Your task to perform on an android device: turn on improve location accuracy Image 0: 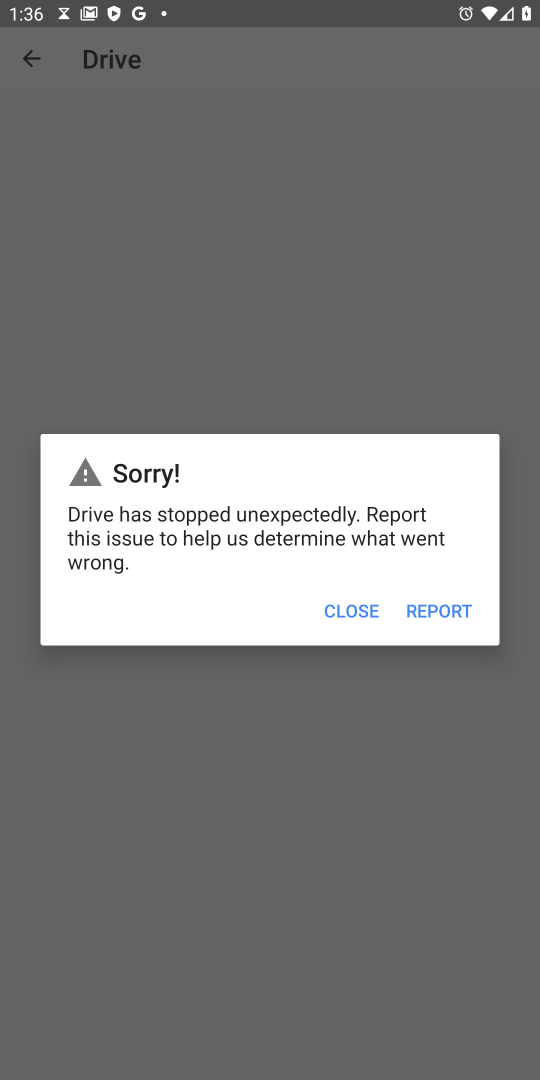
Step 0: press home button
Your task to perform on an android device: turn on improve location accuracy Image 1: 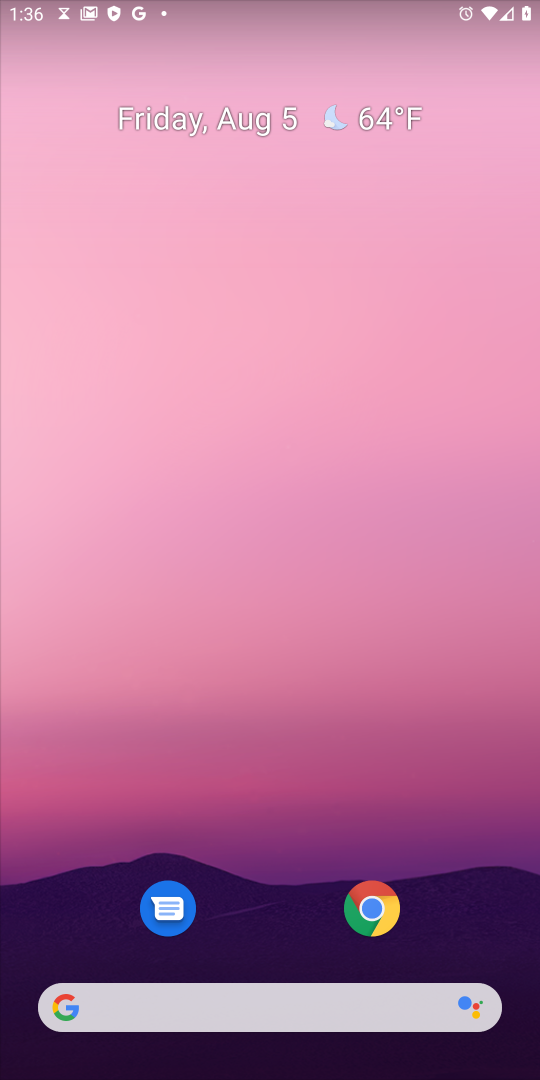
Step 1: drag from (294, 939) to (271, 183)
Your task to perform on an android device: turn on improve location accuracy Image 2: 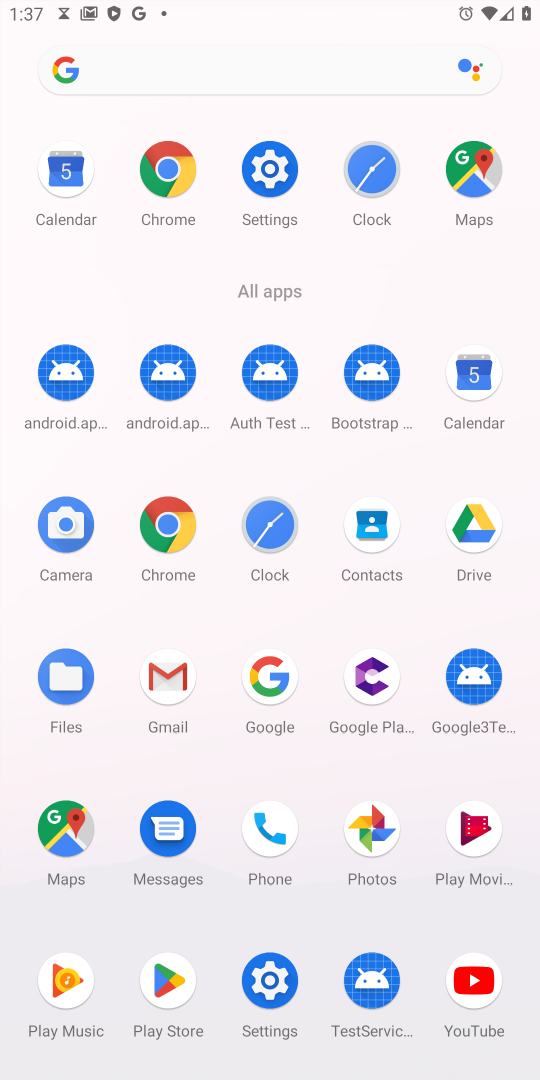
Step 2: click (263, 974)
Your task to perform on an android device: turn on improve location accuracy Image 3: 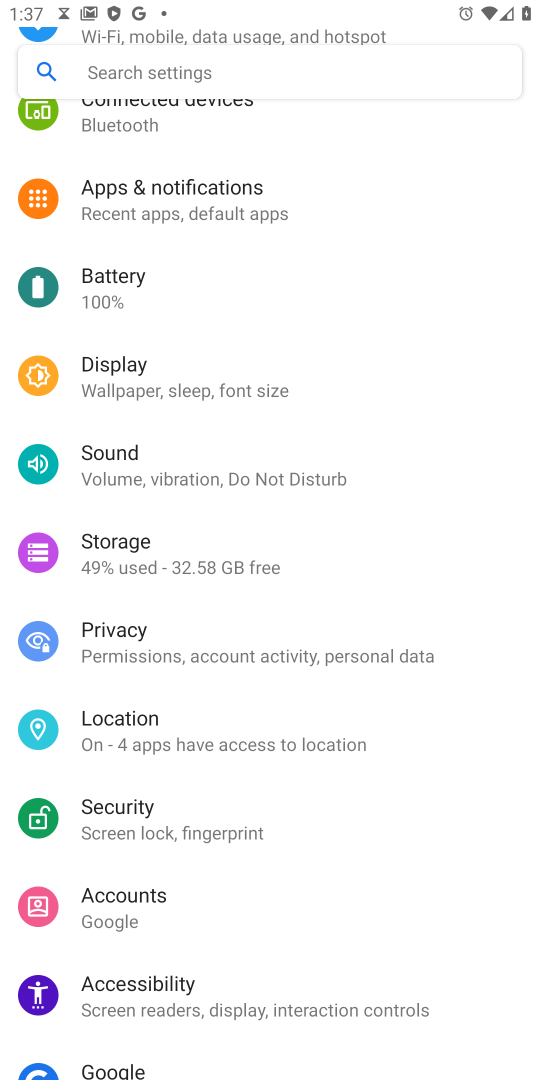
Step 3: click (141, 719)
Your task to perform on an android device: turn on improve location accuracy Image 4: 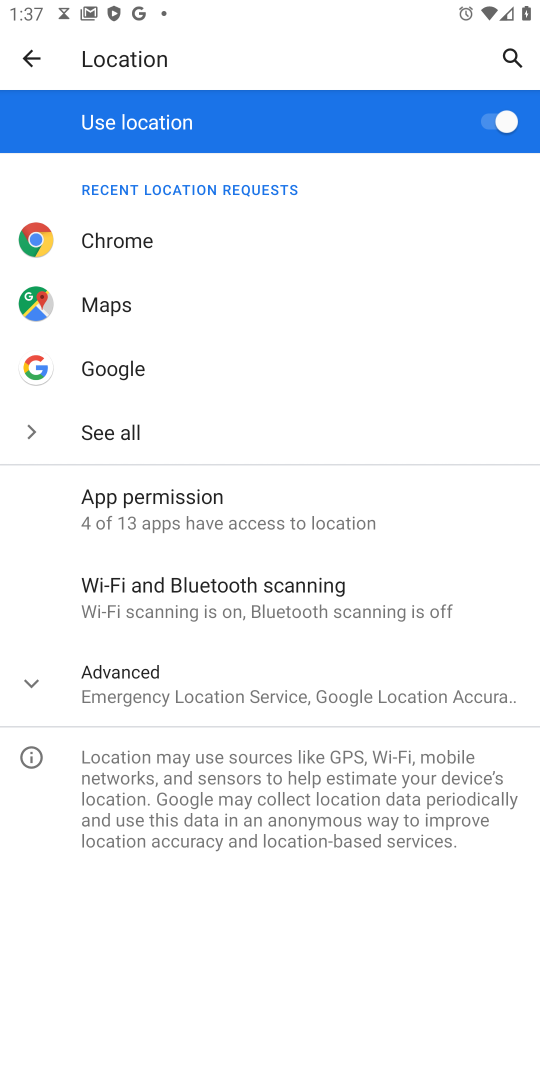
Step 4: click (159, 692)
Your task to perform on an android device: turn on improve location accuracy Image 5: 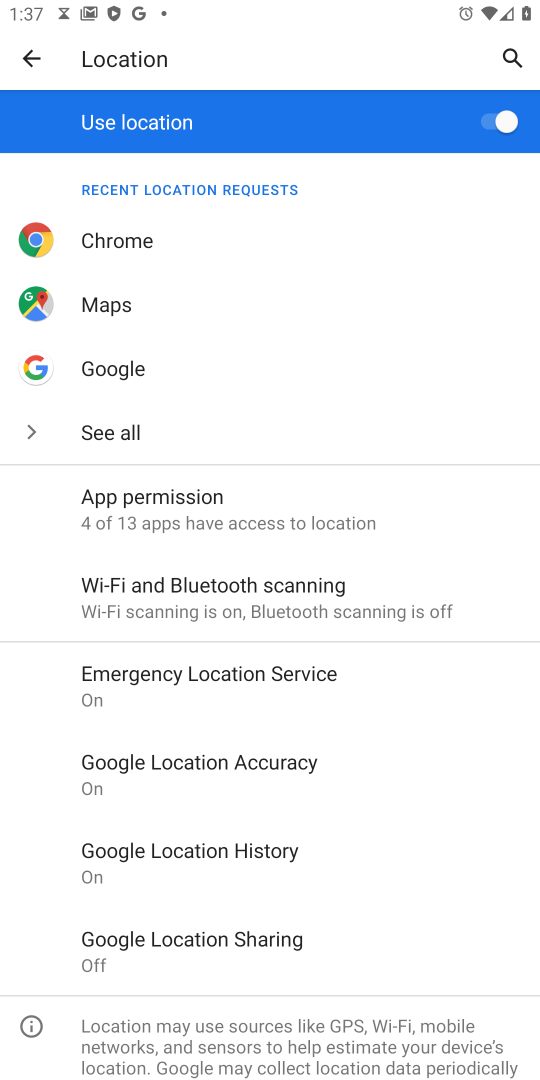
Step 5: click (266, 770)
Your task to perform on an android device: turn on improve location accuracy Image 6: 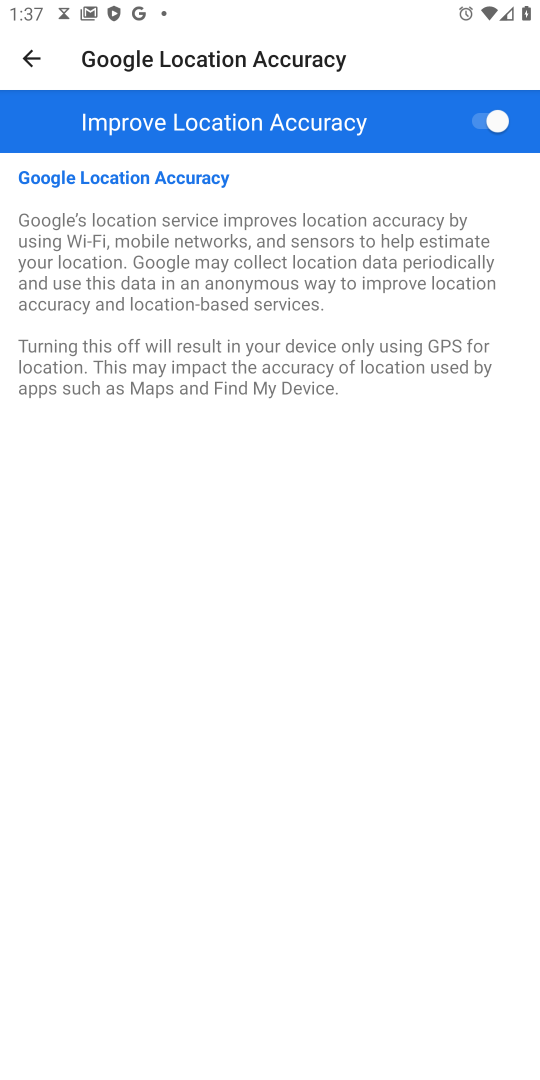
Step 6: task complete